Your task to perform on an android device: Open the contacts Image 0: 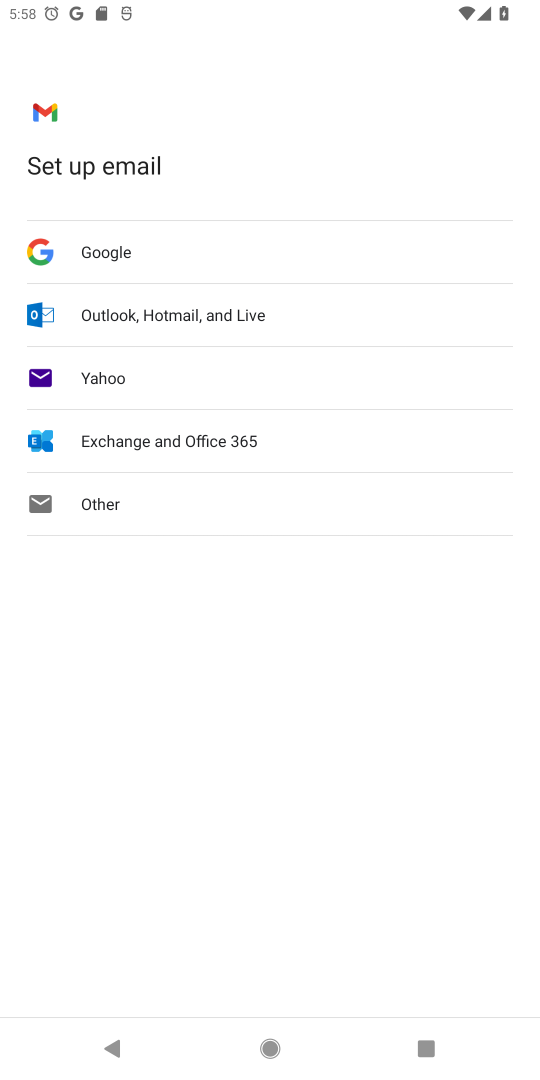
Step 0: press home button
Your task to perform on an android device: Open the contacts Image 1: 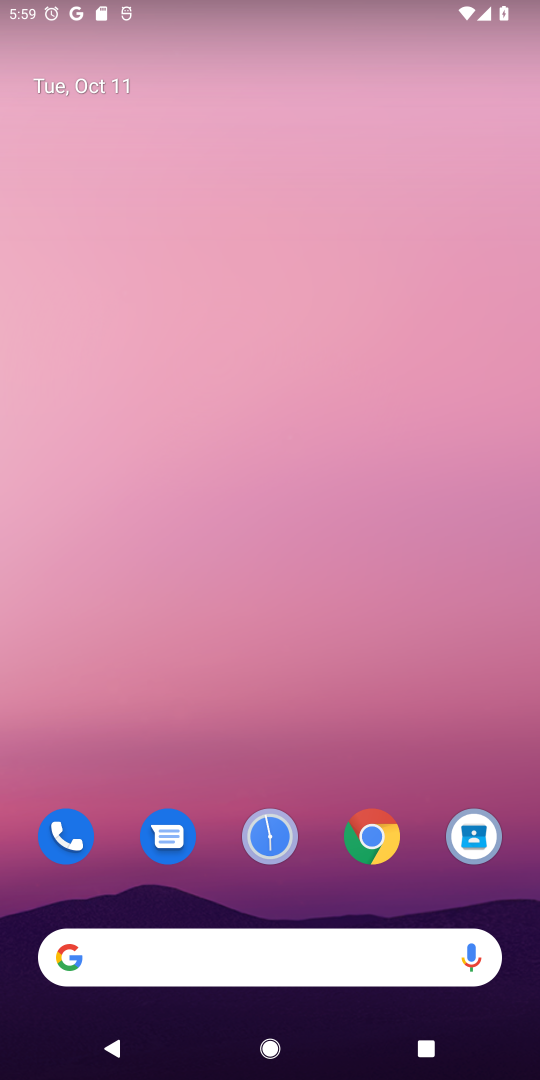
Step 1: drag from (236, 899) to (229, 54)
Your task to perform on an android device: Open the contacts Image 2: 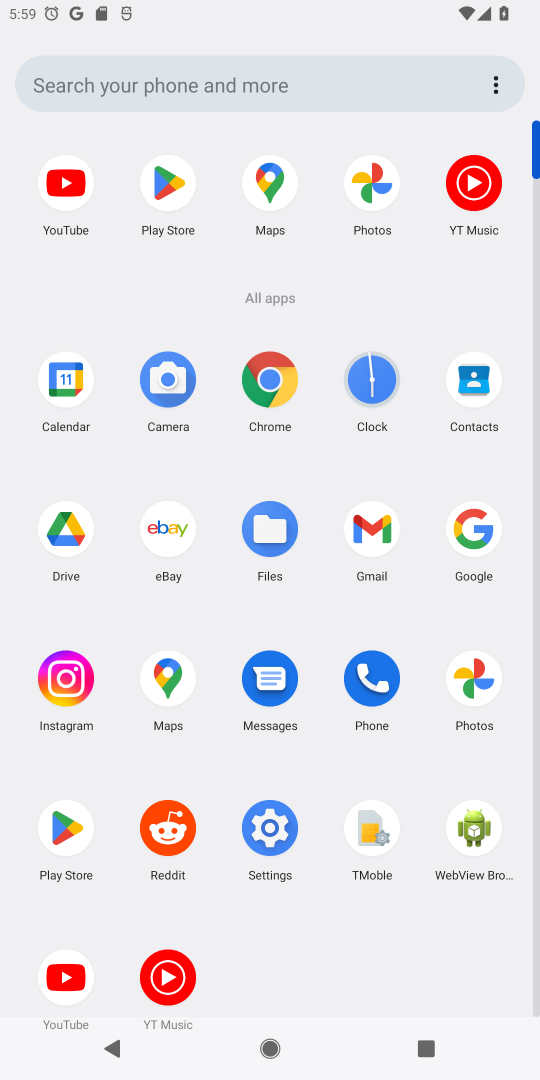
Step 2: click (471, 406)
Your task to perform on an android device: Open the contacts Image 3: 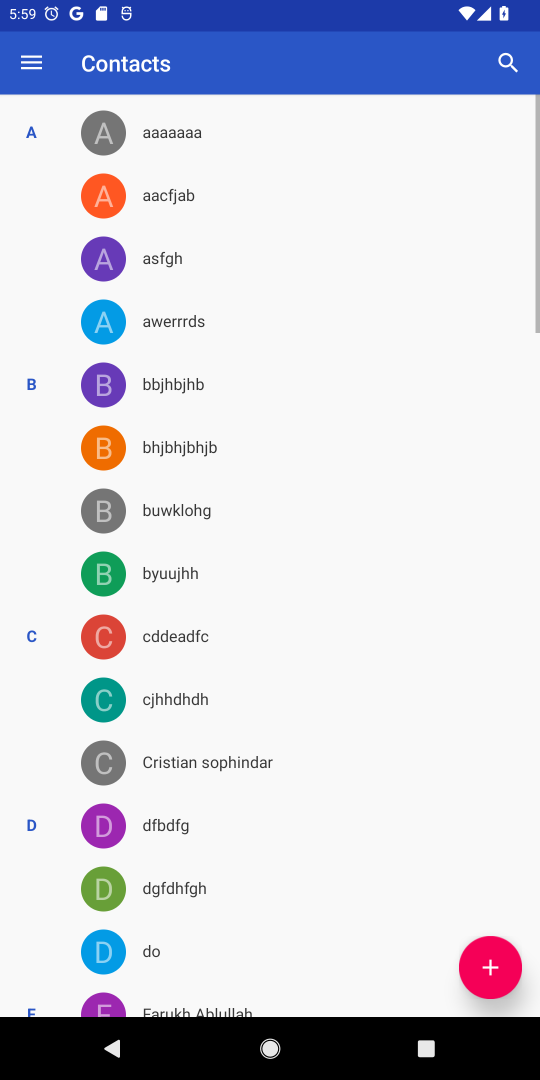
Step 3: task complete